Your task to perform on an android device: What's on my calendar tomorrow? Image 0: 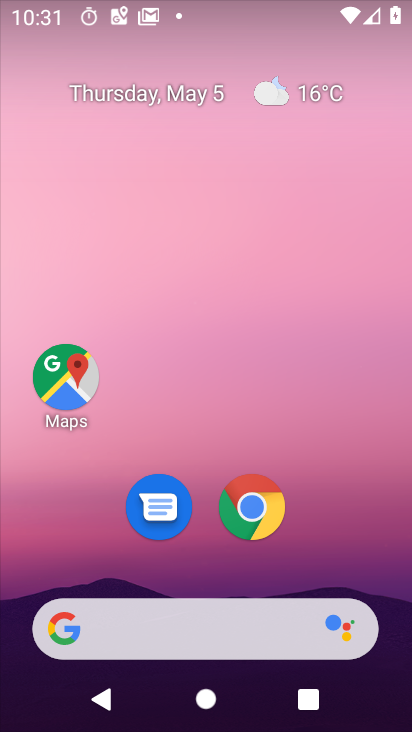
Step 0: drag from (199, 561) to (223, 172)
Your task to perform on an android device: What's on my calendar tomorrow? Image 1: 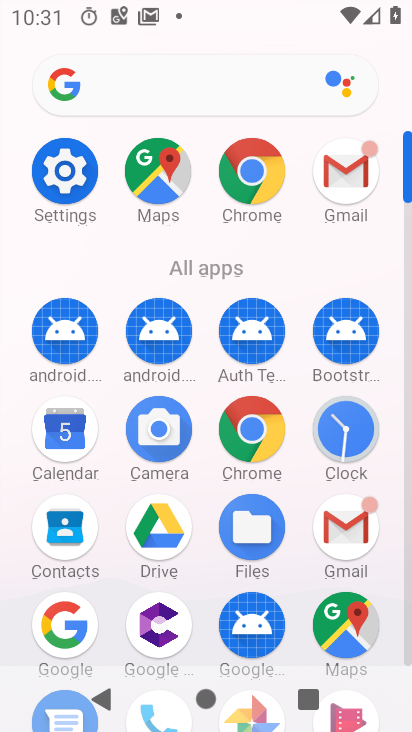
Step 1: click (59, 438)
Your task to perform on an android device: What's on my calendar tomorrow? Image 2: 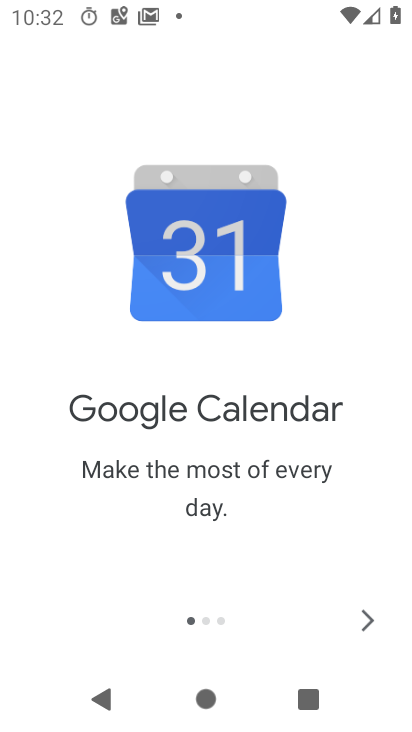
Step 2: click (368, 621)
Your task to perform on an android device: What's on my calendar tomorrow? Image 3: 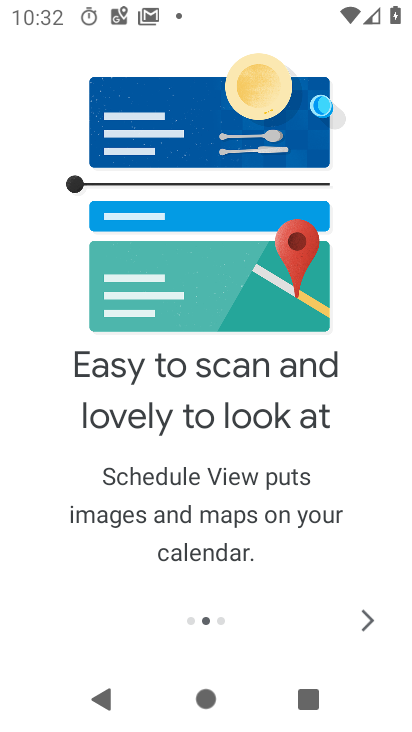
Step 3: click (369, 619)
Your task to perform on an android device: What's on my calendar tomorrow? Image 4: 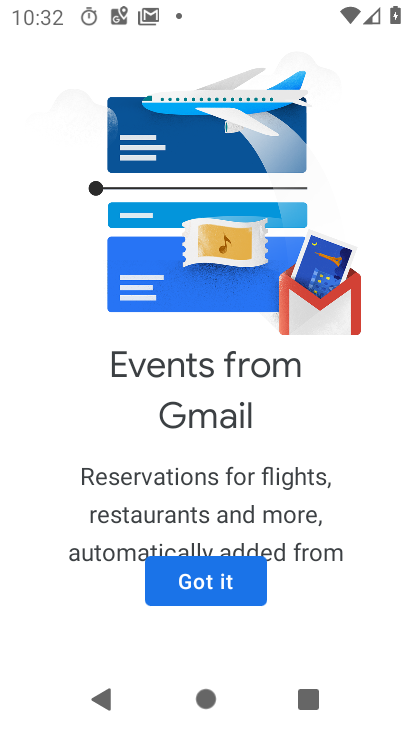
Step 4: click (212, 583)
Your task to perform on an android device: What's on my calendar tomorrow? Image 5: 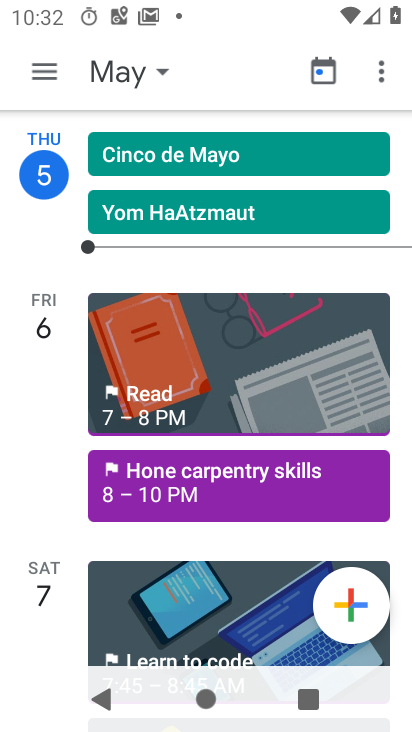
Step 5: click (132, 79)
Your task to perform on an android device: What's on my calendar tomorrow? Image 6: 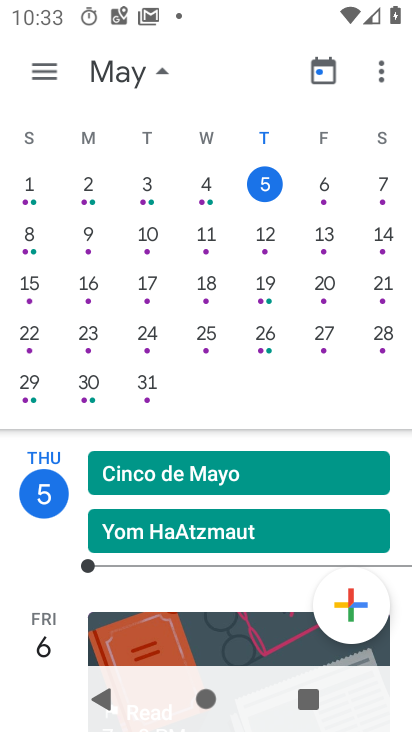
Step 6: click (317, 190)
Your task to perform on an android device: What's on my calendar tomorrow? Image 7: 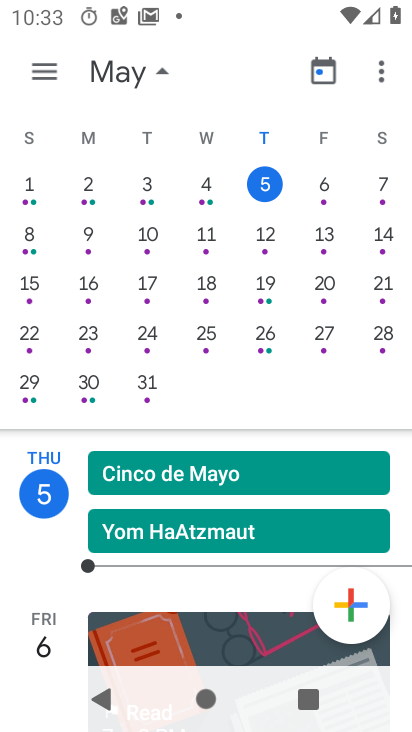
Step 7: click (323, 194)
Your task to perform on an android device: What's on my calendar tomorrow? Image 8: 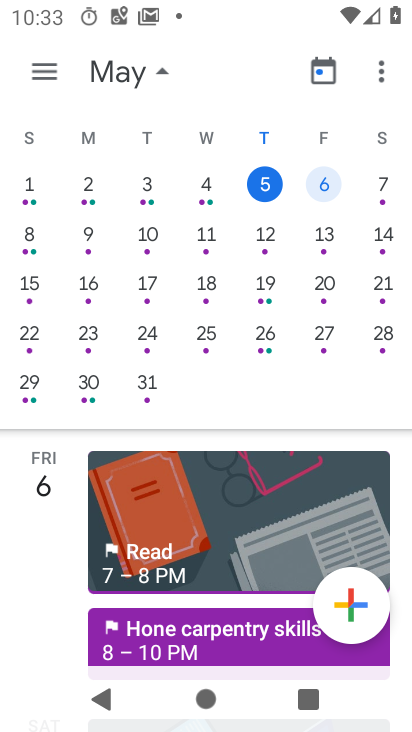
Step 8: task complete